Your task to perform on an android device: clear all cookies in the chrome app Image 0: 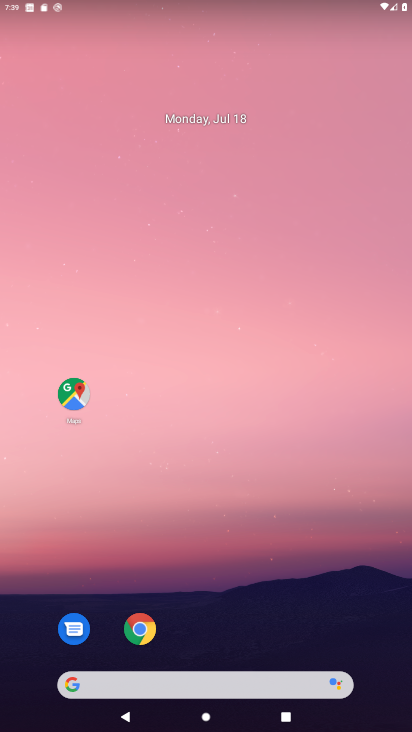
Step 0: click (145, 629)
Your task to perform on an android device: clear all cookies in the chrome app Image 1: 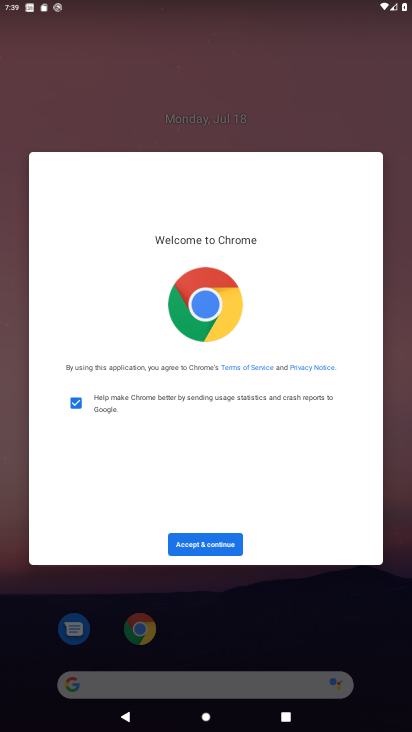
Step 1: click (224, 544)
Your task to perform on an android device: clear all cookies in the chrome app Image 2: 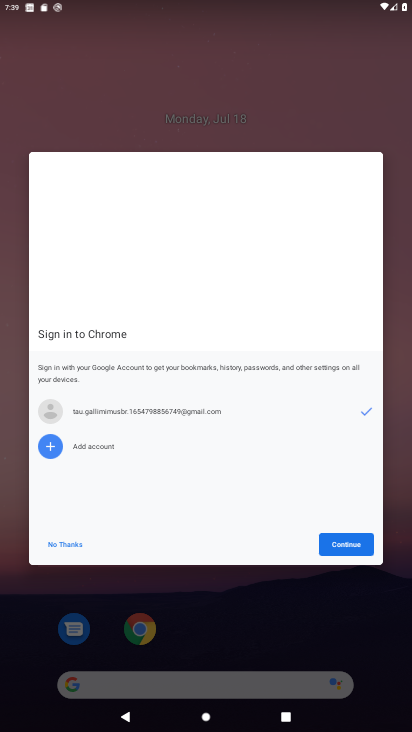
Step 2: click (55, 538)
Your task to perform on an android device: clear all cookies in the chrome app Image 3: 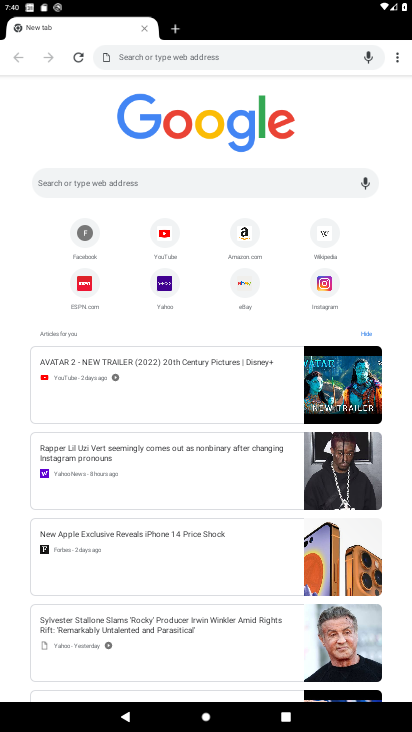
Step 3: click (397, 64)
Your task to perform on an android device: clear all cookies in the chrome app Image 4: 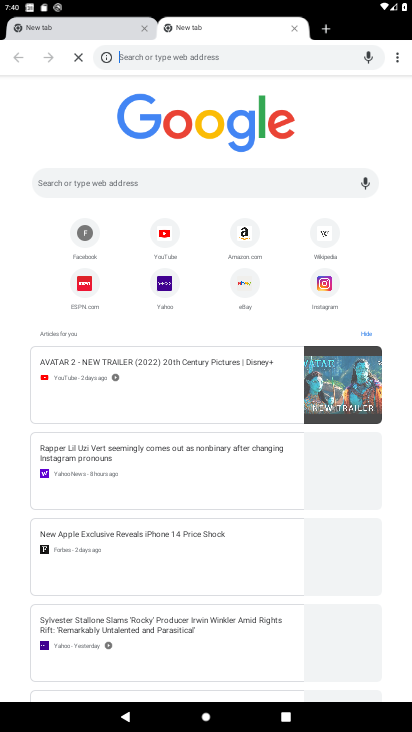
Step 4: click (397, 64)
Your task to perform on an android device: clear all cookies in the chrome app Image 5: 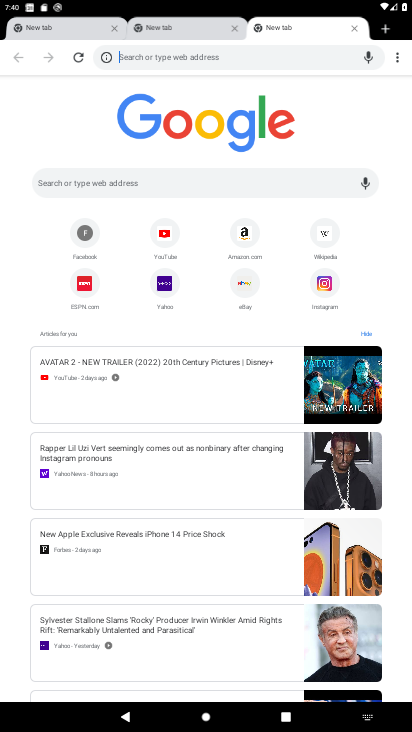
Step 5: click (352, 31)
Your task to perform on an android device: clear all cookies in the chrome app Image 6: 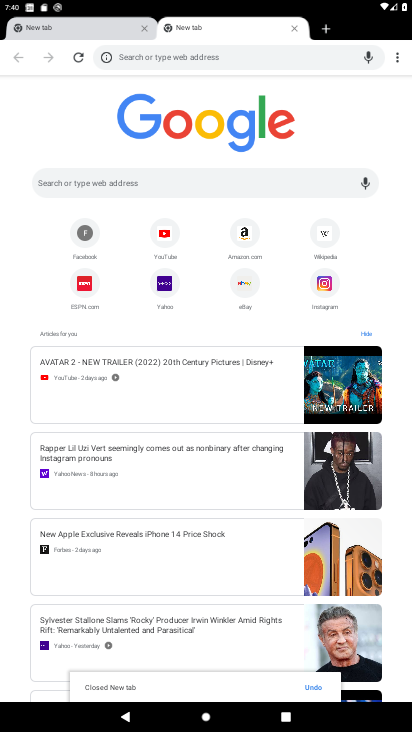
Step 6: click (294, 27)
Your task to perform on an android device: clear all cookies in the chrome app Image 7: 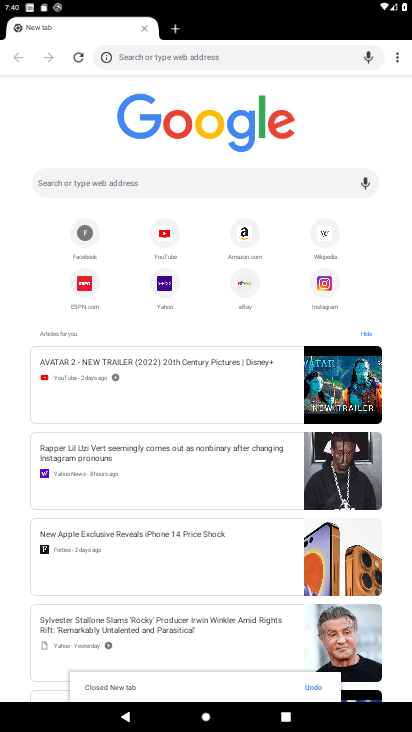
Step 7: click (395, 53)
Your task to perform on an android device: clear all cookies in the chrome app Image 8: 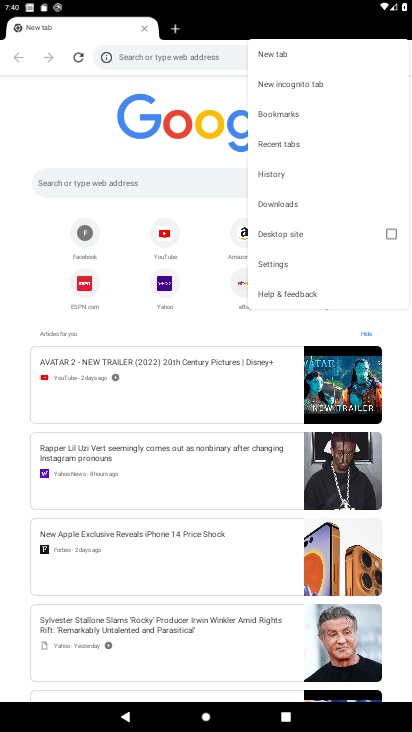
Step 8: click (291, 263)
Your task to perform on an android device: clear all cookies in the chrome app Image 9: 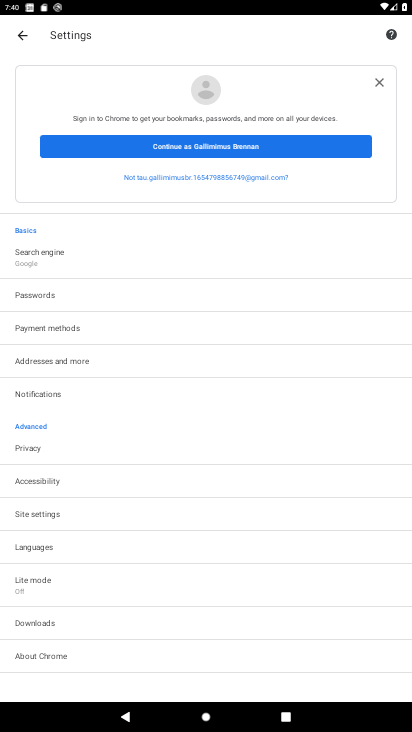
Step 9: click (44, 451)
Your task to perform on an android device: clear all cookies in the chrome app Image 10: 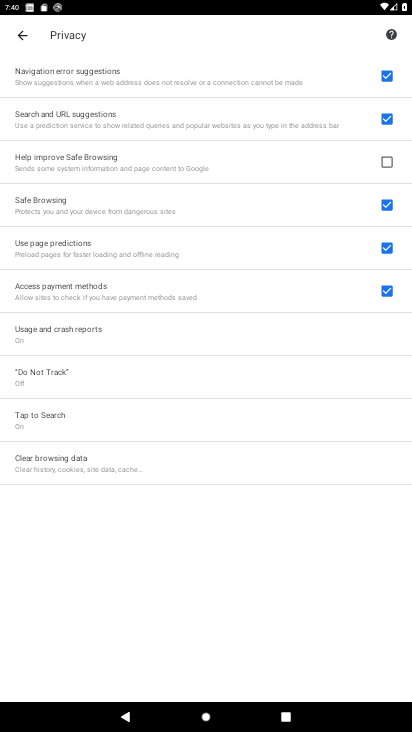
Step 10: click (149, 469)
Your task to perform on an android device: clear all cookies in the chrome app Image 11: 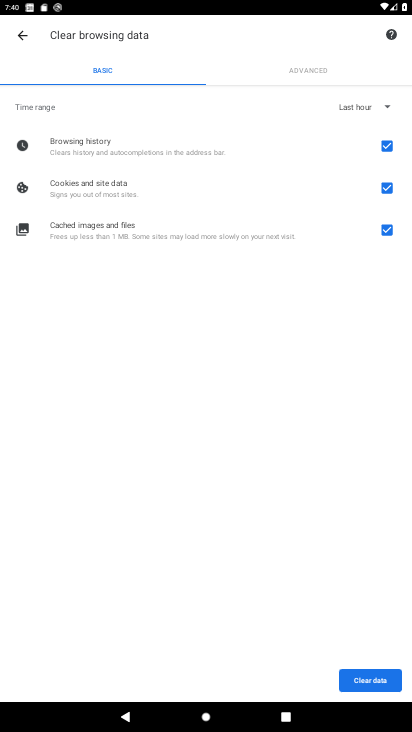
Step 11: click (387, 144)
Your task to perform on an android device: clear all cookies in the chrome app Image 12: 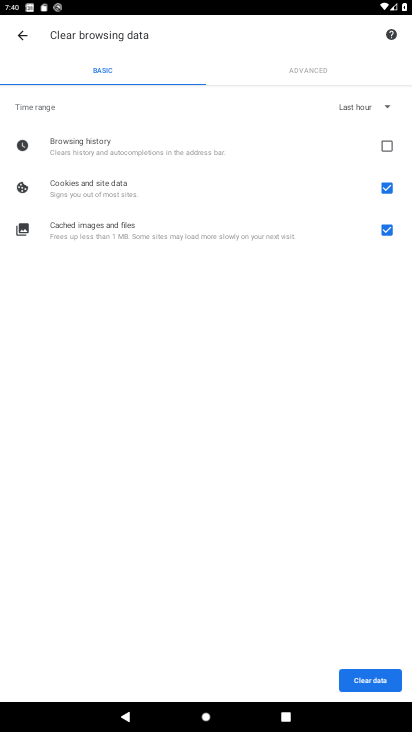
Step 12: click (387, 228)
Your task to perform on an android device: clear all cookies in the chrome app Image 13: 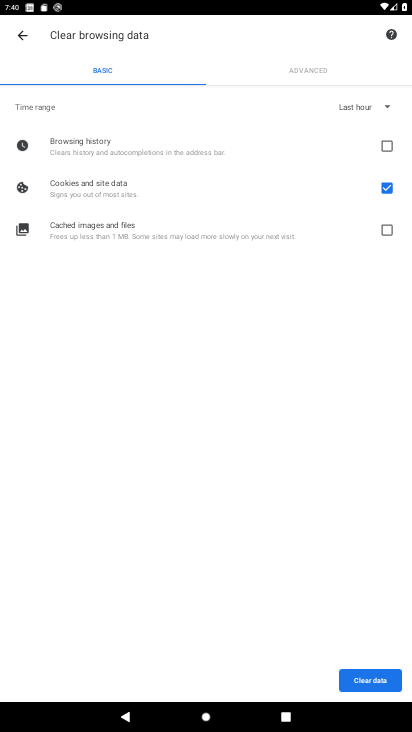
Step 13: click (369, 676)
Your task to perform on an android device: clear all cookies in the chrome app Image 14: 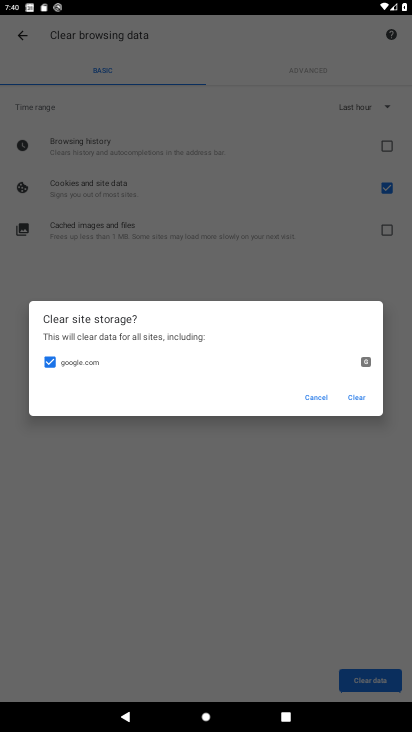
Step 14: click (358, 398)
Your task to perform on an android device: clear all cookies in the chrome app Image 15: 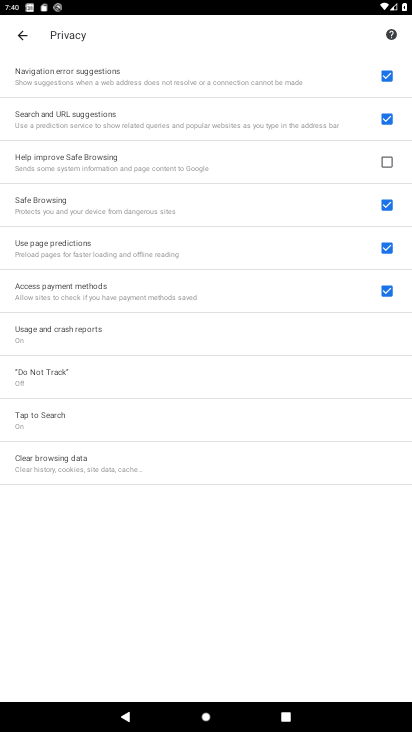
Step 15: task complete